Your task to perform on an android device: change the upload size in google photos Image 0: 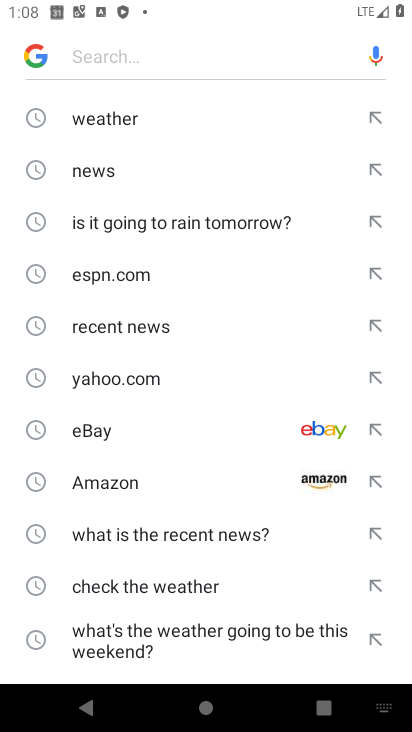
Step 0: press home button
Your task to perform on an android device: change the upload size in google photos Image 1: 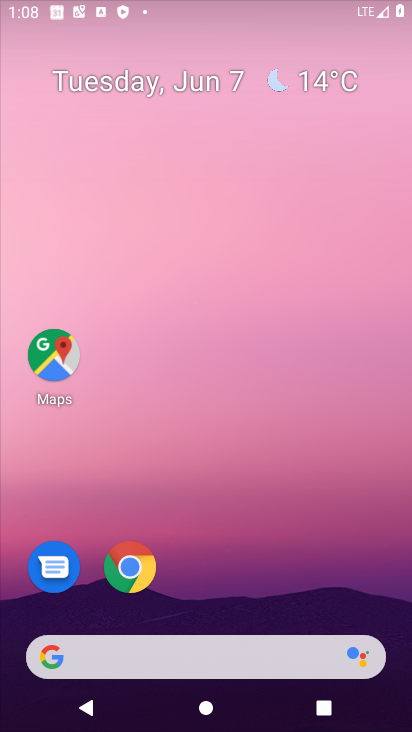
Step 1: drag from (325, 491) to (362, 43)
Your task to perform on an android device: change the upload size in google photos Image 2: 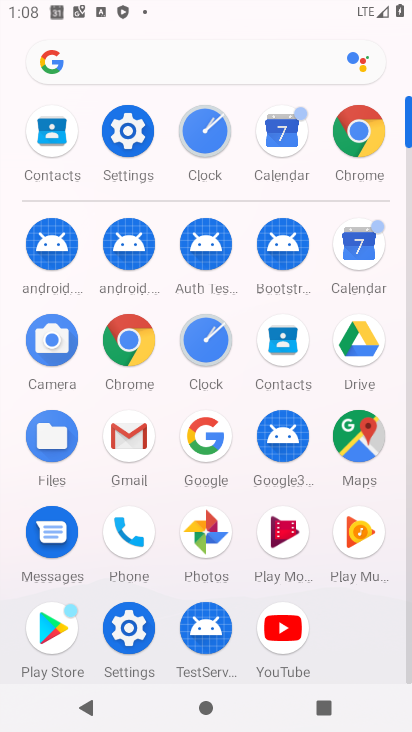
Step 2: click (220, 546)
Your task to perform on an android device: change the upload size in google photos Image 3: 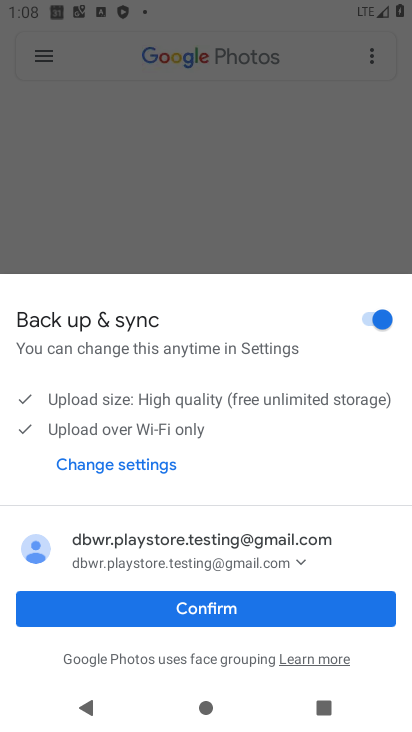
Step 3: click (213, 610)
Your task to perform on an android device: change the upload size in google photos Image 4: 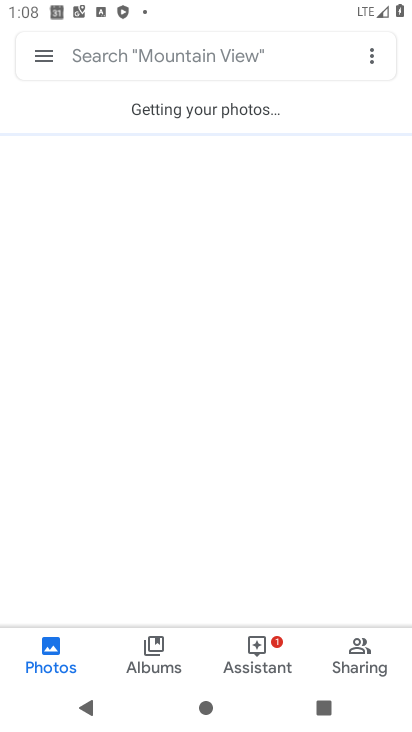
Step 4: click (44, 43)
Your task to perform on an android device: change the upload size in google photos Image 5: 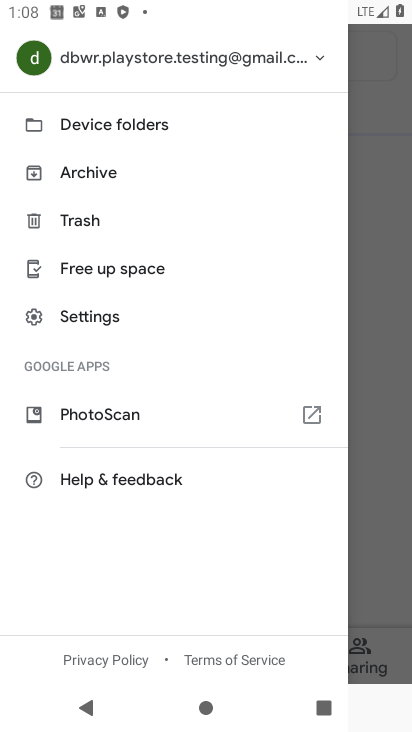
Step 5: click (135, 323)
Your task to perform on an android device: change the upload size in google photos Image 6: 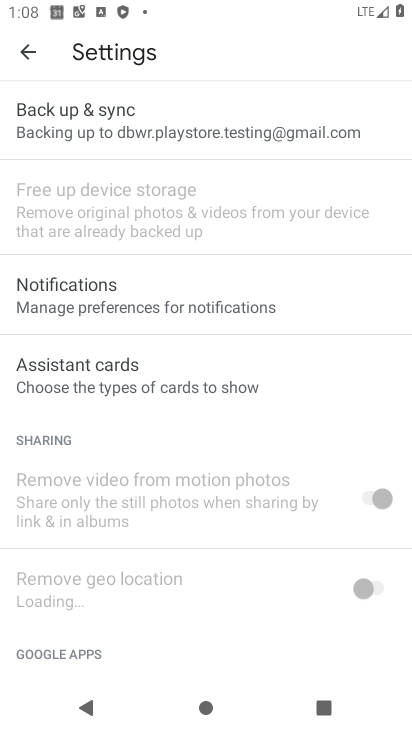
Step 6: click (172, 128)
Your task to perform on an android device: change the upload size in google photos Image 7: 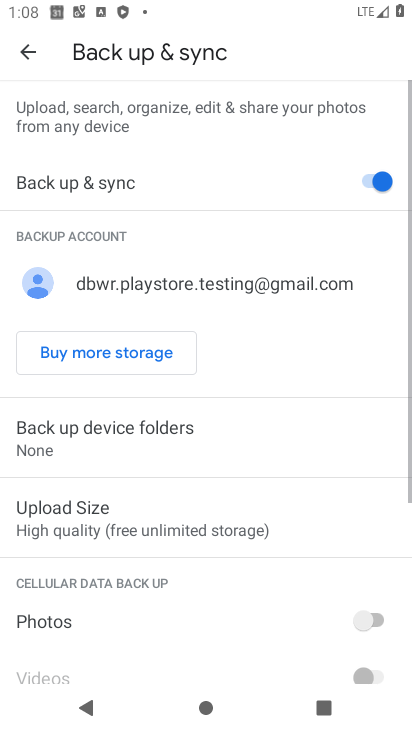
Step 7: click (109, 504)
Your task to perform on an android device: change the upload size in google photos Image 8: 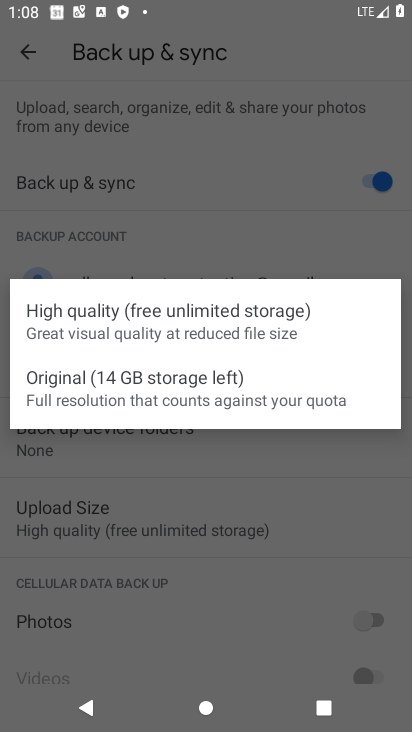
Step 8: click (118, 376)
Your task to perform on an android device: change the upload size in google photos Image 9: 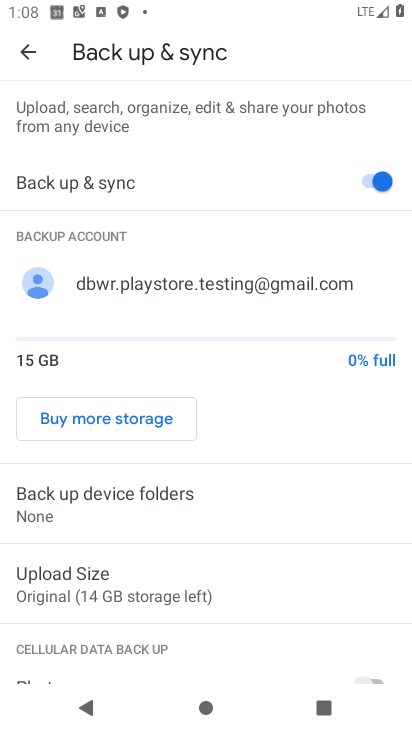
Step 9: task complete